Your task to perform on an android device: What time is it in Tokyo? Image 0: 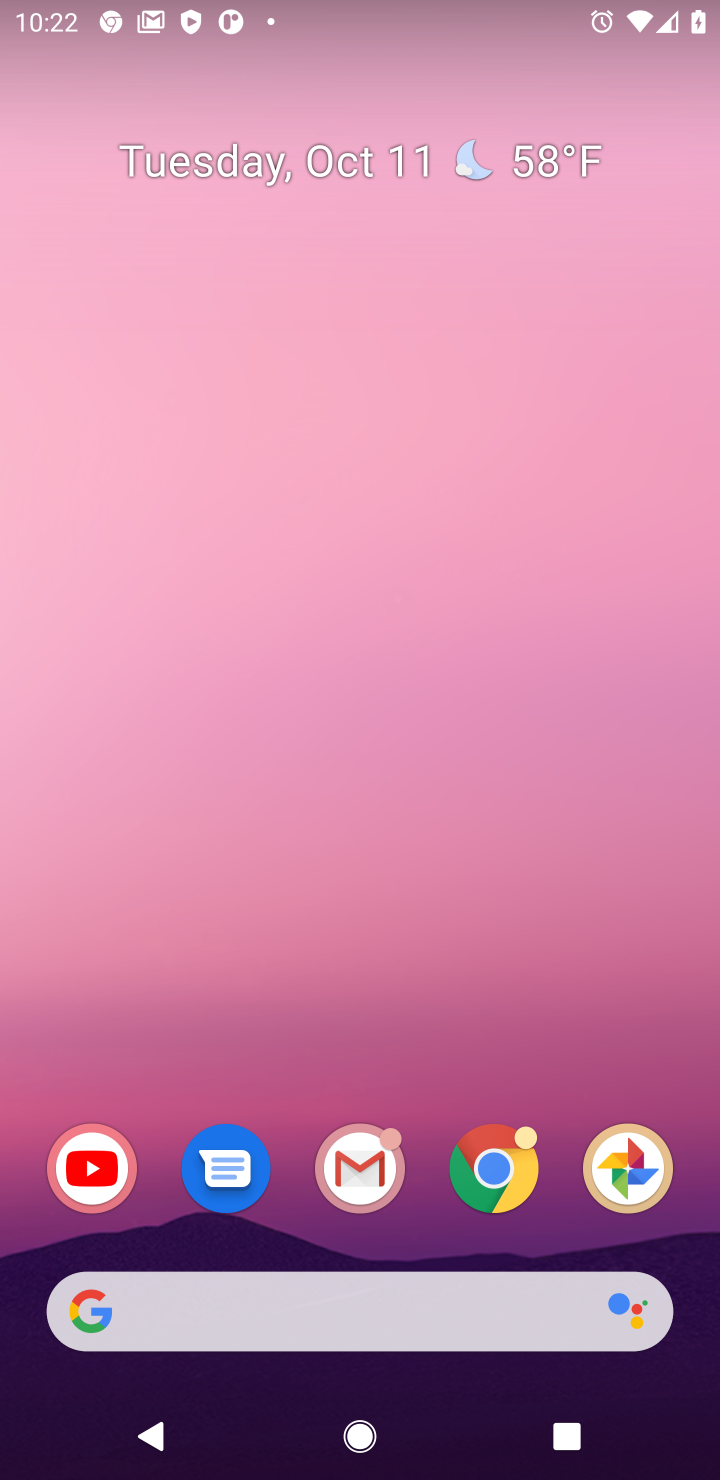
Step 0: click (491, 1159)
Your task to perform on an android device: What time is it in Tokyo? Image 1: 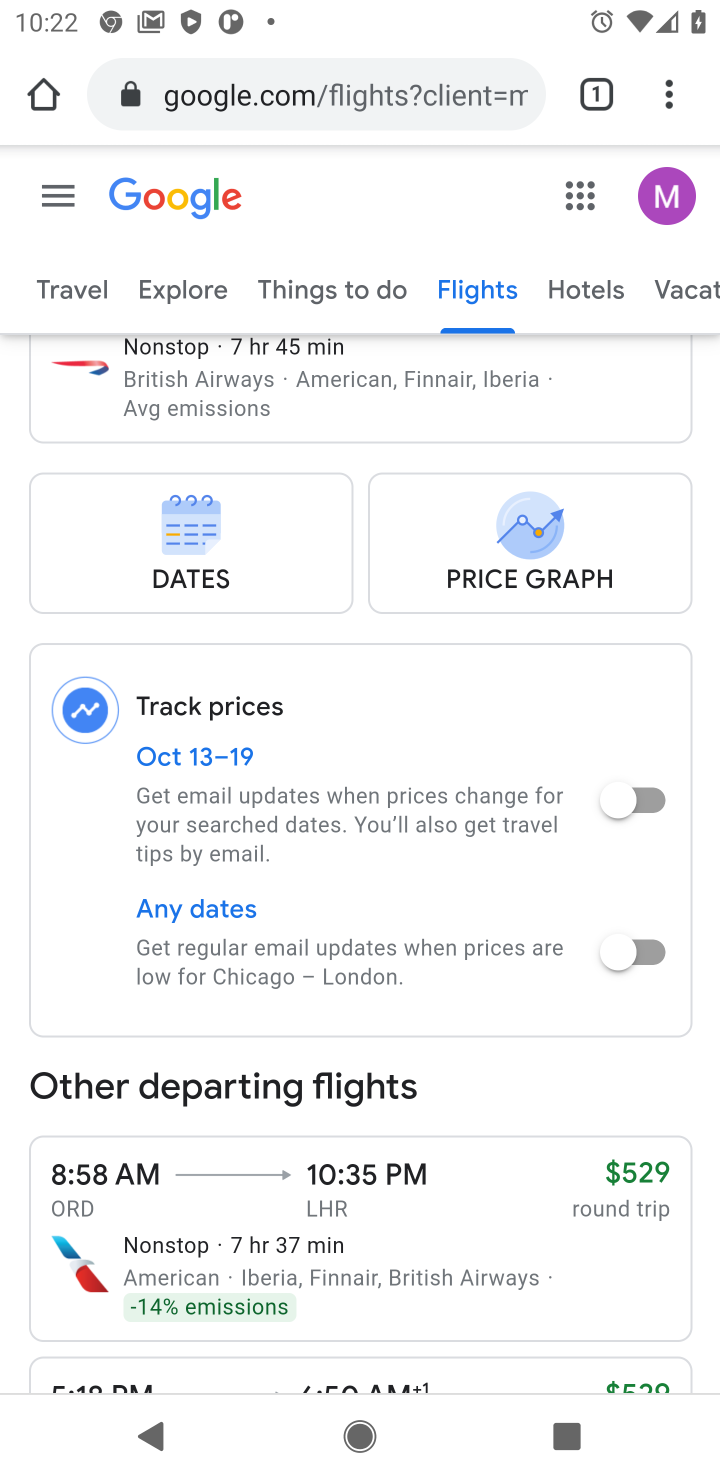
Step 1: click (405, 86)
Your task to perform on an android device: What time is it in Tokyo? Image 2: 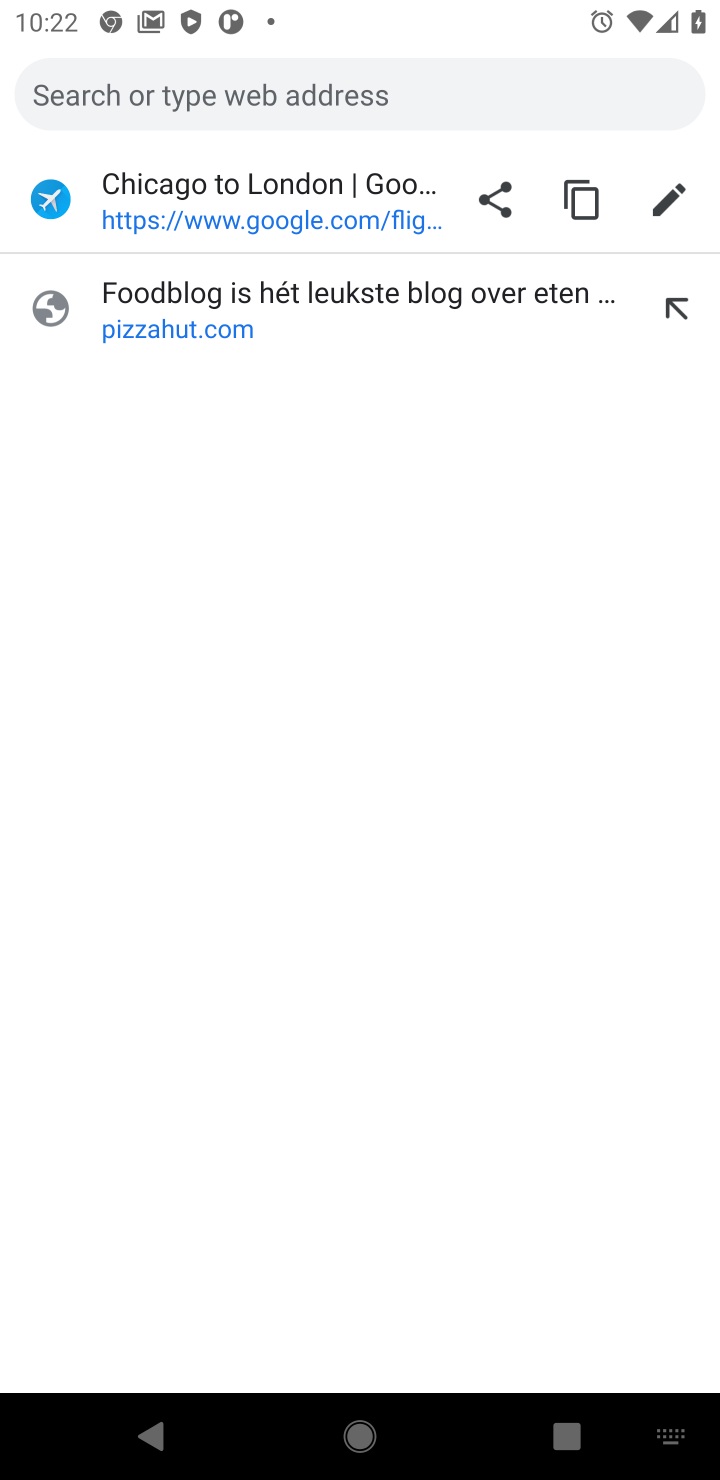
Step 2: type "what time is it tokyo"
Your task to perform on an android device: What time is it in Tokyo? Image 3: 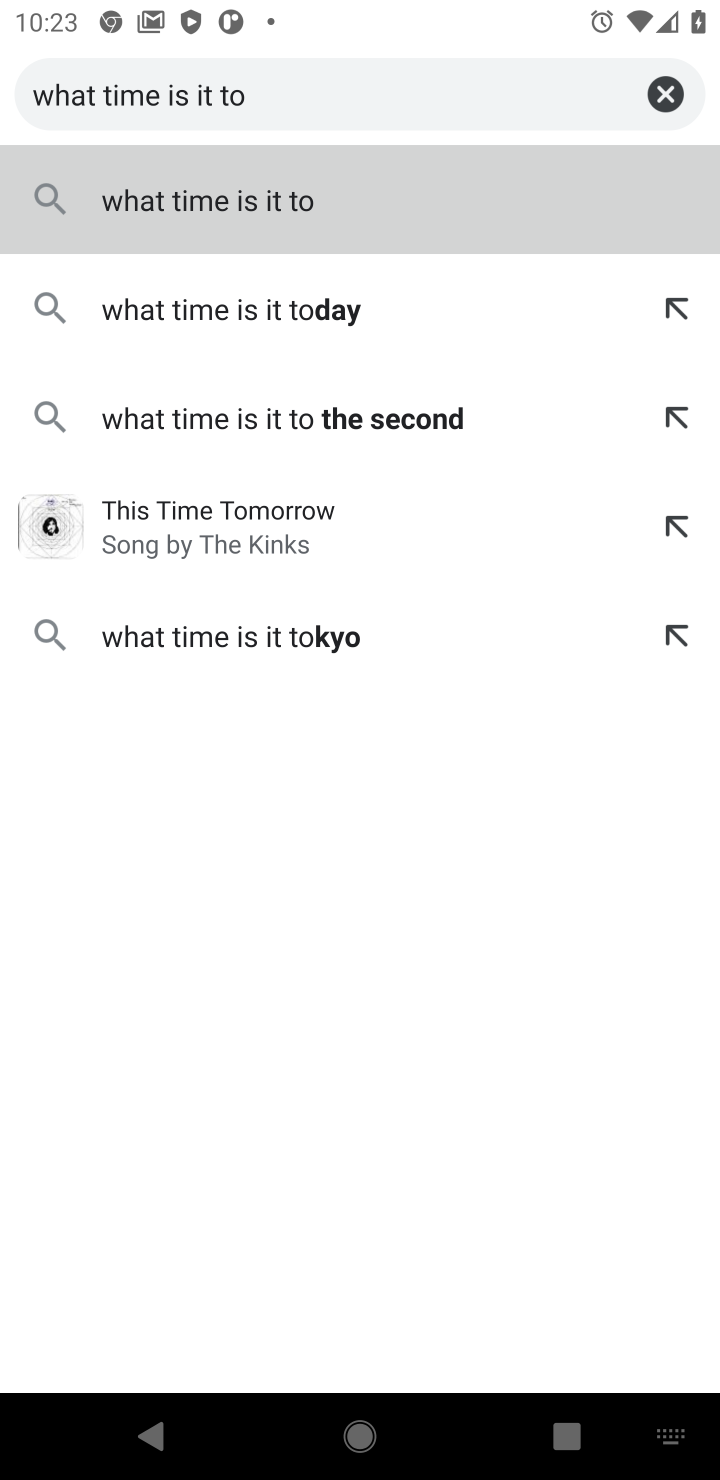
Step 3: click (254, 633)
Your task to perform on an android device: What time is it in Tokyo? Image 4: 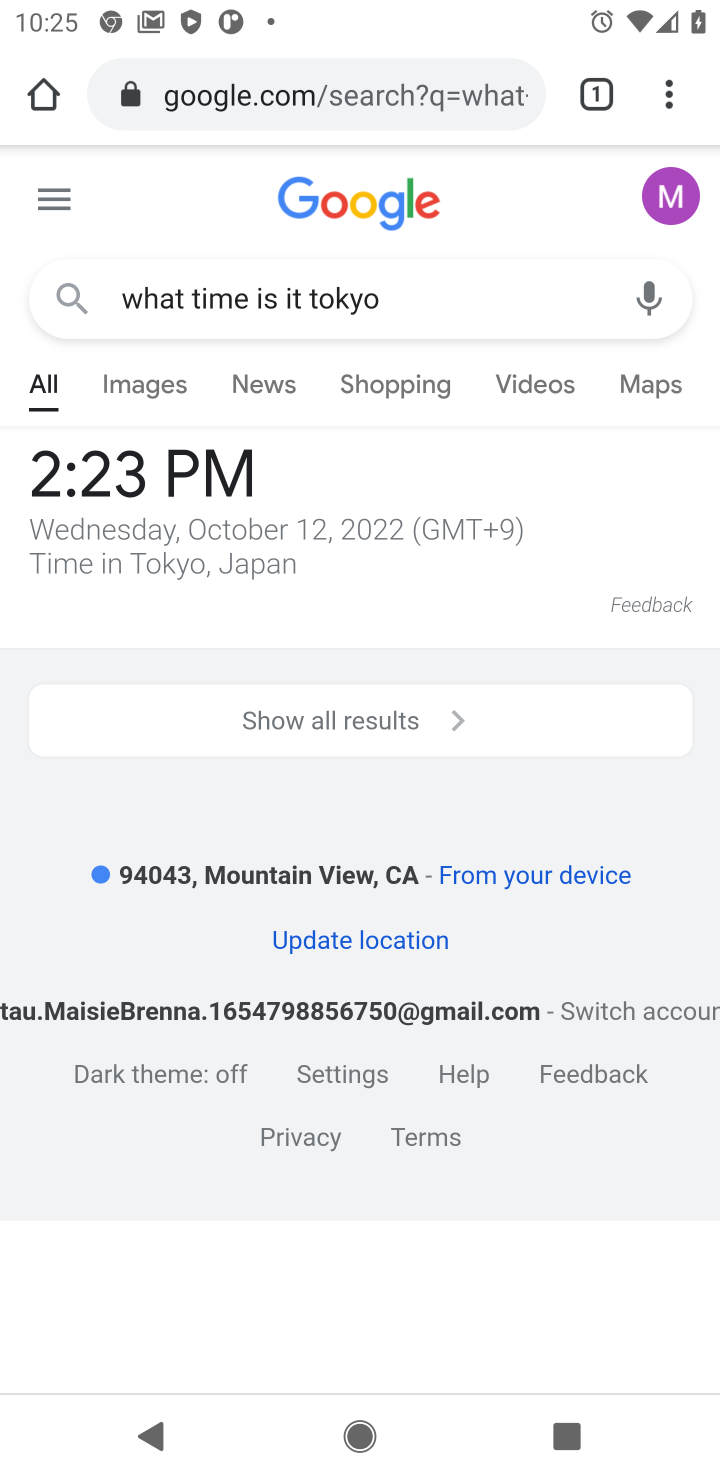
Step 4: task complete